Your task to perform on an android device: check storage Image 0: 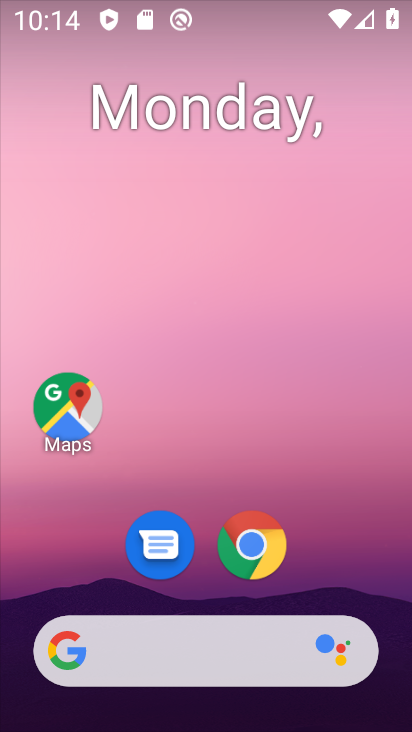
Step 0: drag from (399, 526) to (341, 211)
Your task to perform on an android device: check storage Image 1: 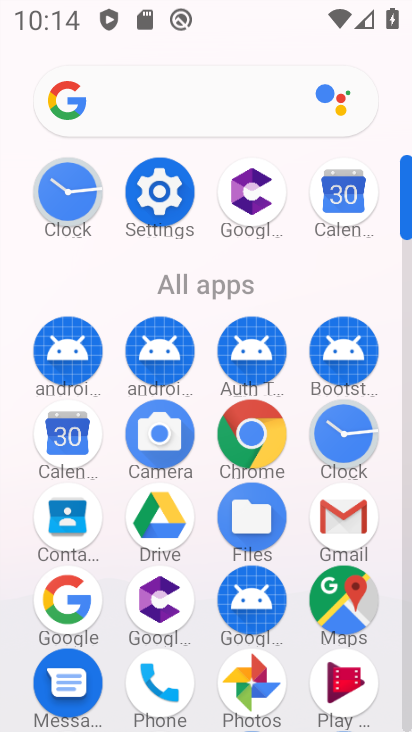
Step 1: click (128, 196)
Your task to perform on an android device: check storage Image 2: 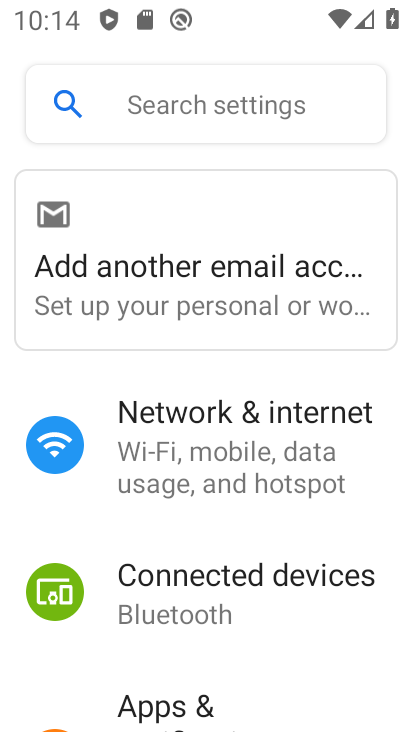
Step 2: drag from (274, 665) to (329, 239)
Your task to perform on an android device: check storage Image 3: 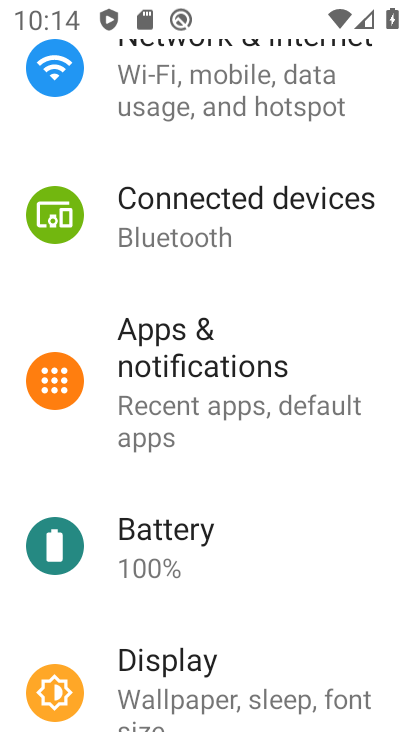
Step 3: drag from (260, 618) to (261, 283)
Your task to perform on an android device: check storage Image 4: 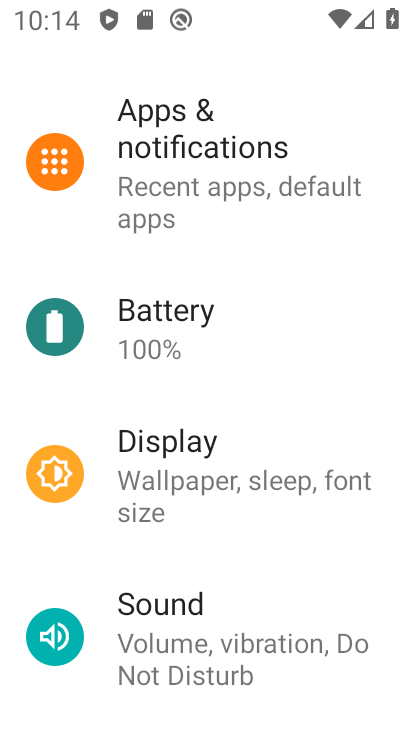
Step 4: drag from (269, 551) to (299, 366)
Your task to perform on an android device: check storage Image 5: 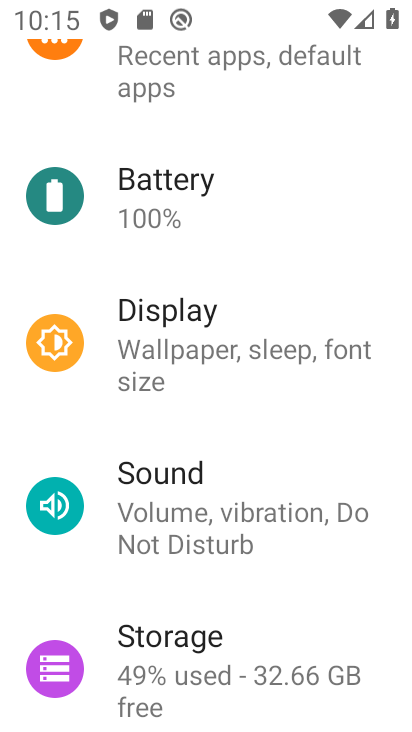
Step 5: click (255, 642)
Your task to perform on an android device: check storage Image 6: 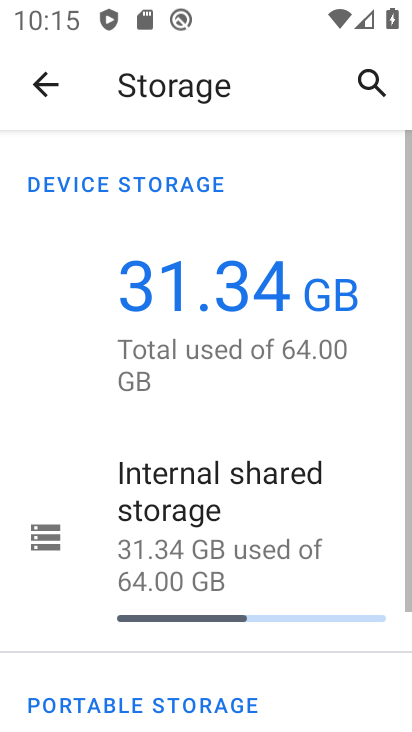
Step 6: drag from (281, 672) to (315, 360)
Your task to perform on an android device: check storage Image 7: 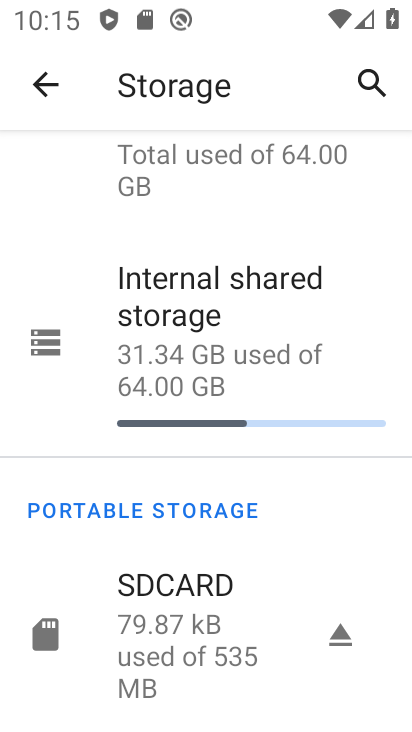
Step 7: click (33, 344)
Your task to perform on an android device: check storage Image 8: 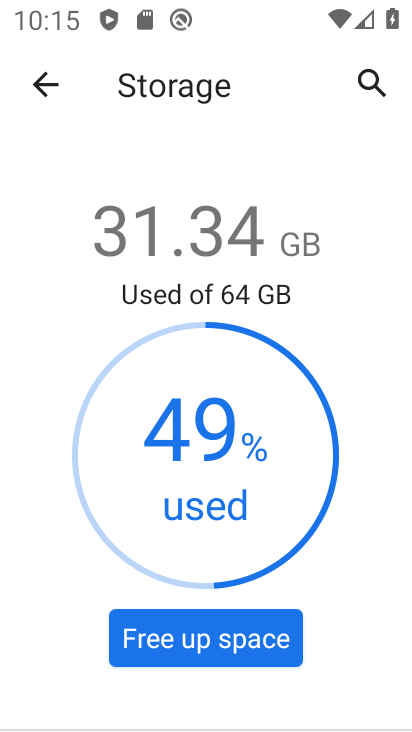
Step 8: task complete